Your task to perform on an android device: Toggle the flashlight Image 0: 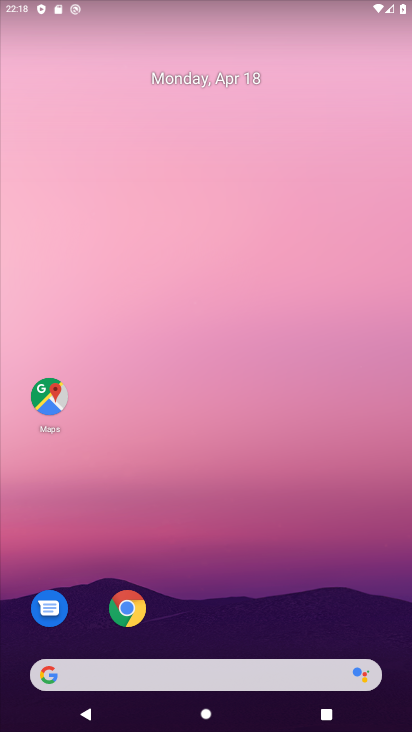
Step 0: drag from (228, 606) to (324, 120)
Your task to perform on an android device: Toggle the flashlight Image 1: 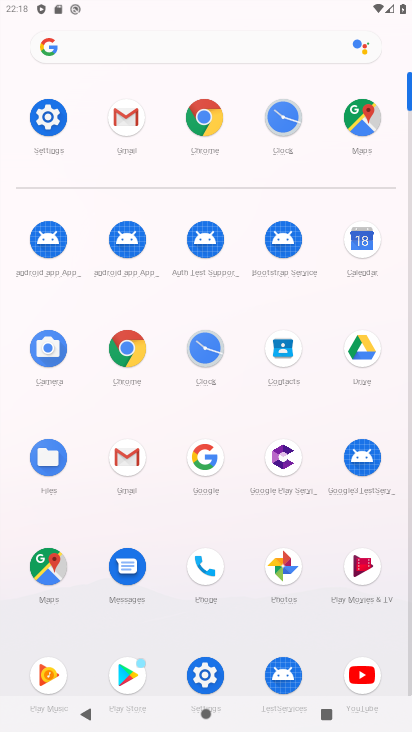
Step 1: click (51, 115)
Your task to perform on an android device: Toggle the flashlight Image 2: 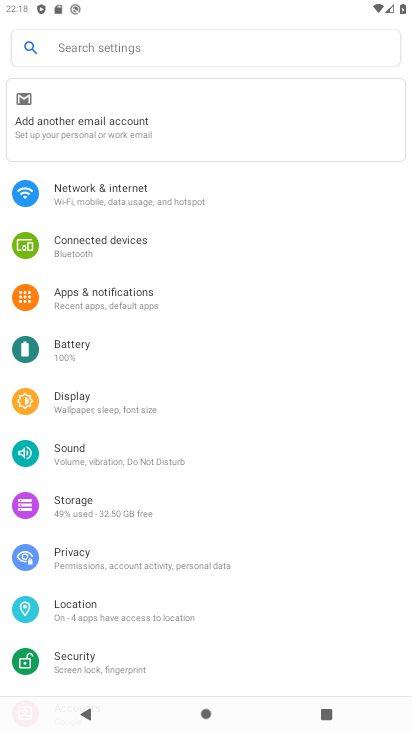
Step 2: click (167, 34)
Your task to perform on an android device: Toggle the flashlight Image 3: 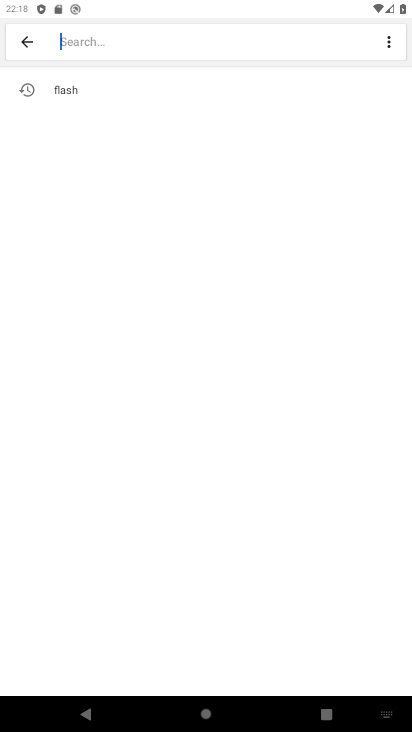
Step 3: click (118, 76)
Your task to perform on an android device: Toggle the flashlight Image 4: 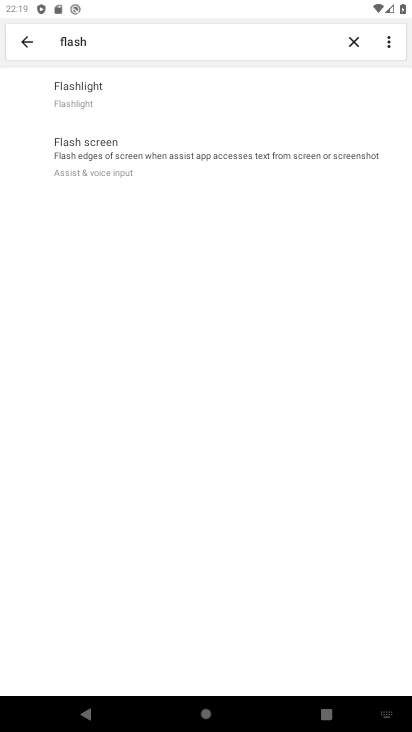
Step 4: task complete